Your task to perform on an android device: turn on showing notifications on the lock screen Image 0: 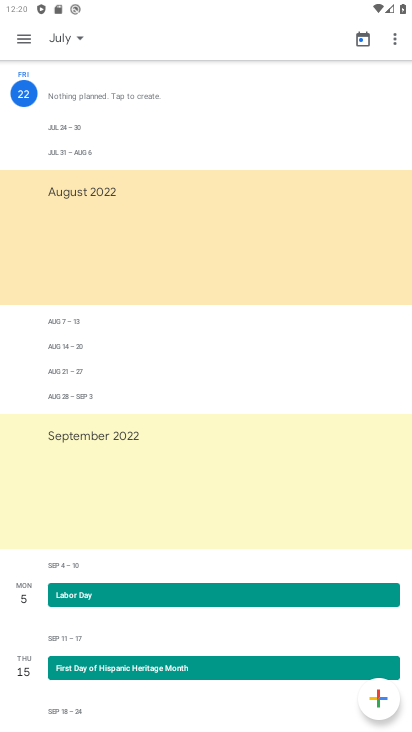
Step 0: press home button
Your task to perform on an android device: turn on showing notifications on the lock screen Image 1: 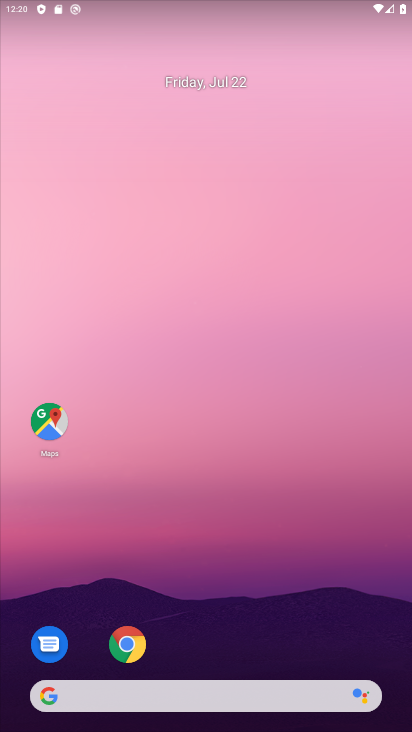
Step 1: drag from (215, 658) to (256, 87)
Your task to perform on an android device: turn on showing notifications on the lock screen Image 2: 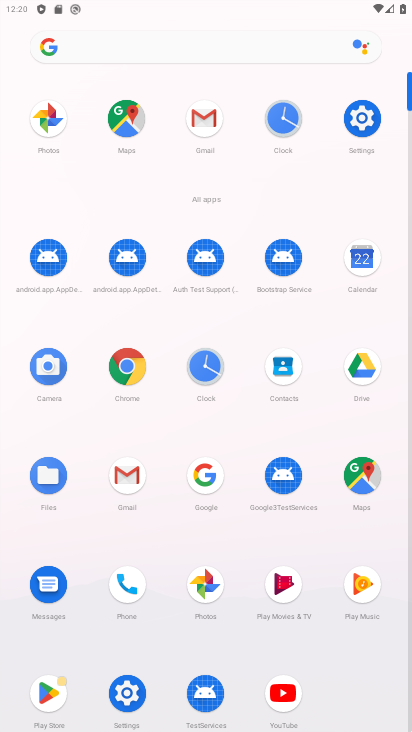
Step 2: click (137, 713)
Your task to perform on an android device: turn on showing notifications on the lock screen Image 3: 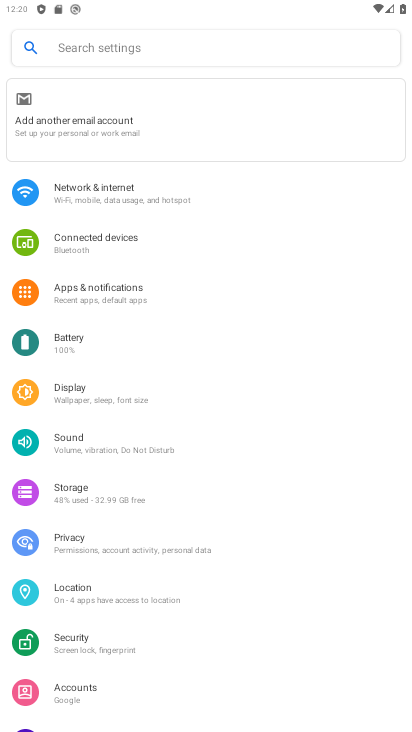
Step 3: click (109, 284)
Your task to perform on an android device: turn on showing notifications on the lock screen Image 4: 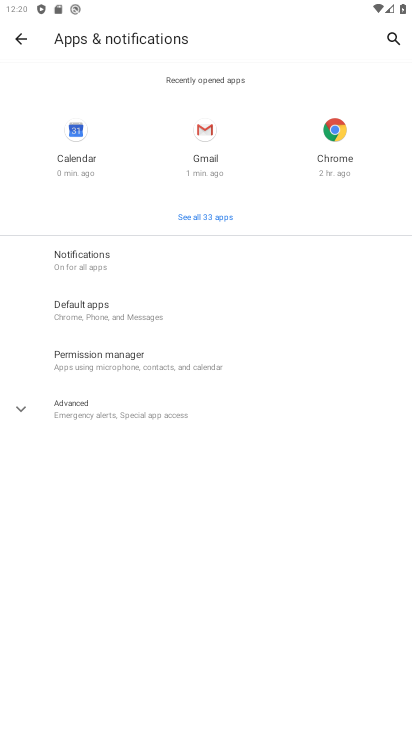
Step 4: task complete